Your task to perform on an android device: turn notification dots on Image 0: 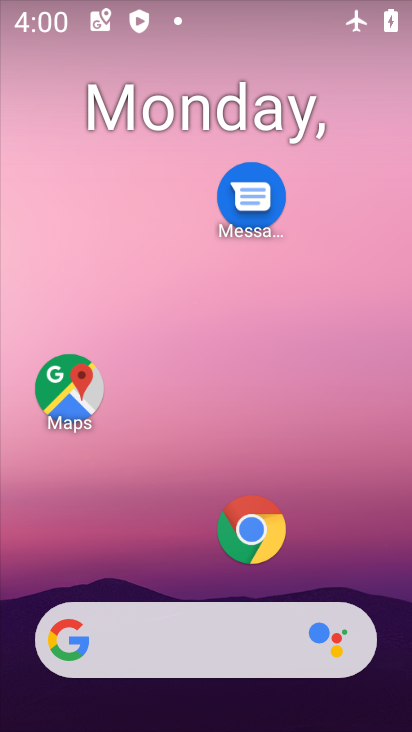
Step 0: drag from (181, 613) to (181, 117)
Your task to perform on an android device: turn notification dots on Image 1: 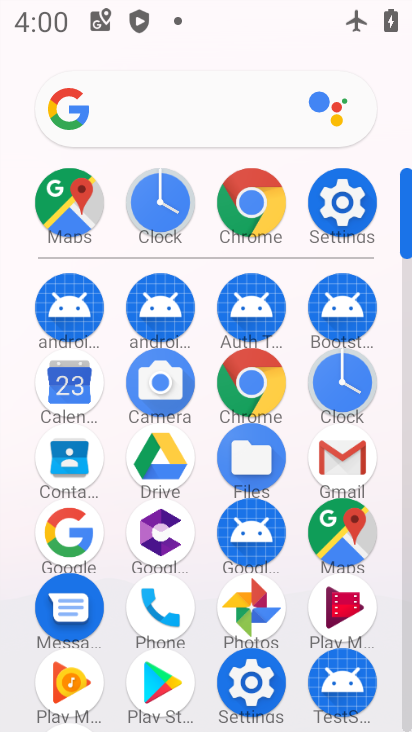
Step 1: click (324, 196)
Your task to perform on an android device: turn notification dots on Image 2: 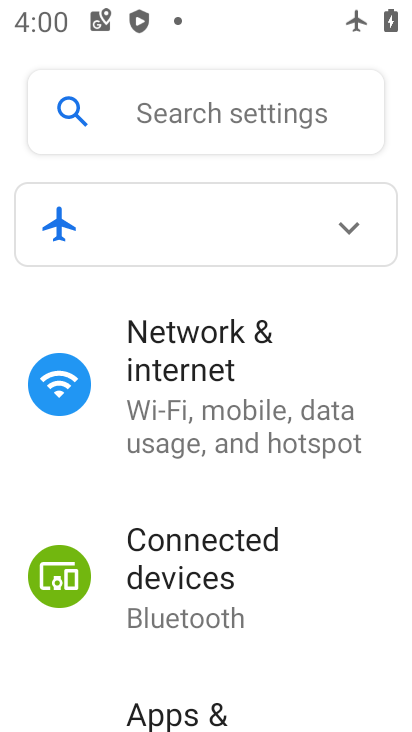
Step 2: drag from (167, 687) to (225, 175)
Your task to perform on an android device: turn notification dots on Image 3: 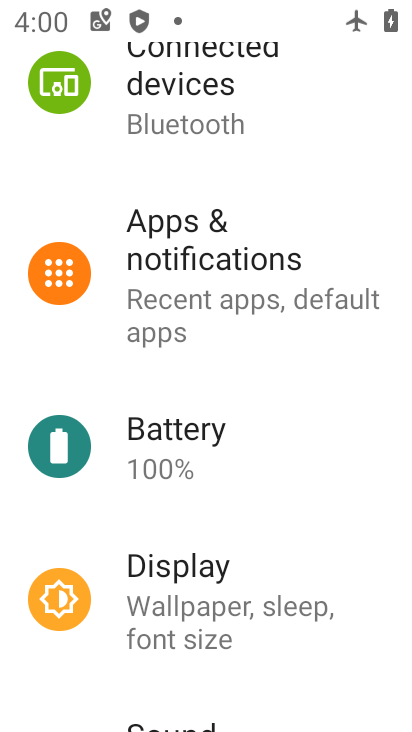
Step 3: click (187, 273)
Your task to perform on an android device: turn notification dots on Image 4: 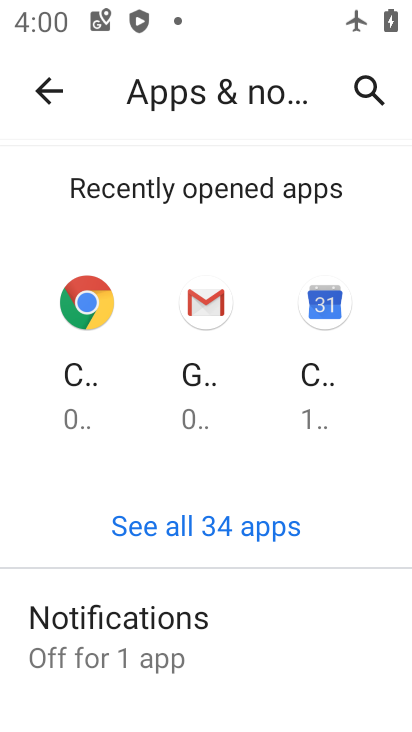
Step 4: click (110, 630)
Your task to perform on an android device: turn notification dots on Image 5: 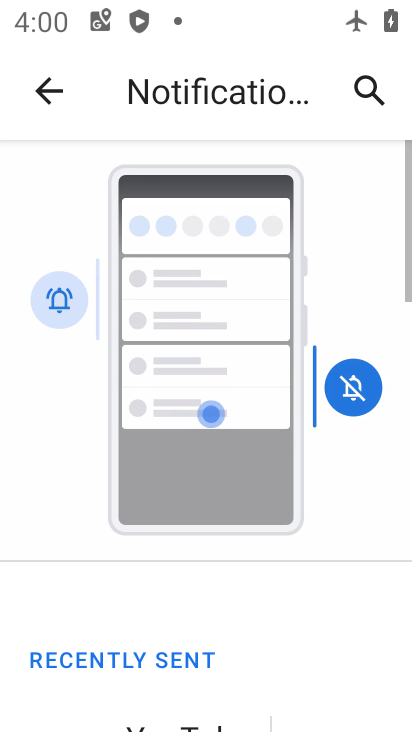
Step 5: drag from (235, 684) to (230, 153)
Your task to perform on an android device: turn notification dots on Image 6: 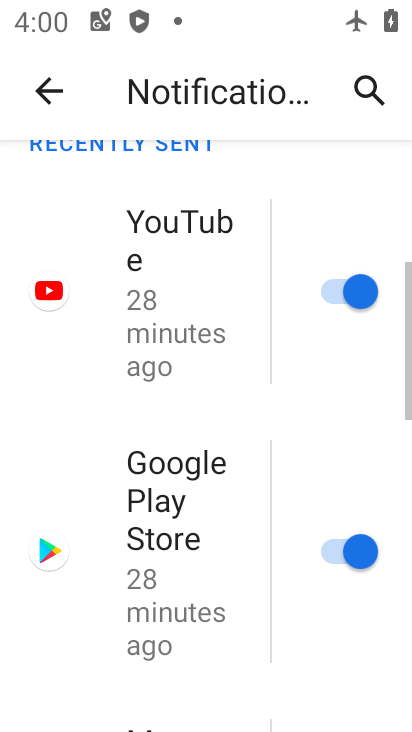
Step 6: drag from (172, 632) to (153, 129)
Your task to perform on an android device: turn notification dots on Image 7: 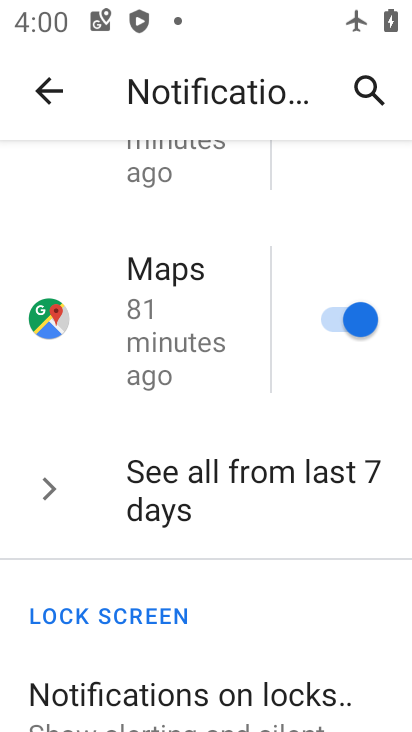
Step 7: drag from (225, 685) to (229, 418)
Your task to perform on an android device: turn notification dots on Image 8: 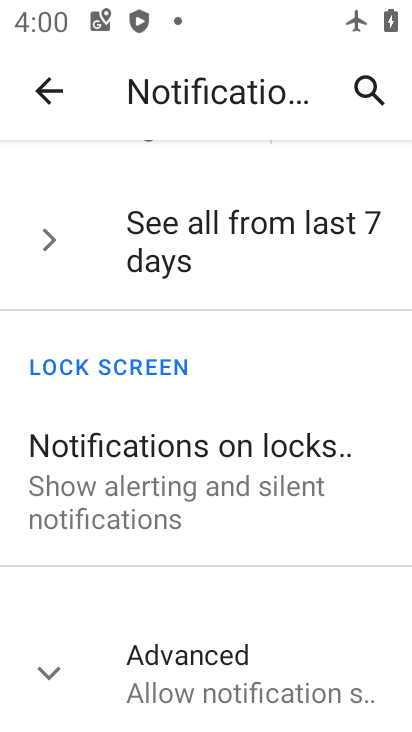
Step 8: drag from (186, 676) to (218, 318)
Your task to perform on an android device: turn notification dots on Image 9: 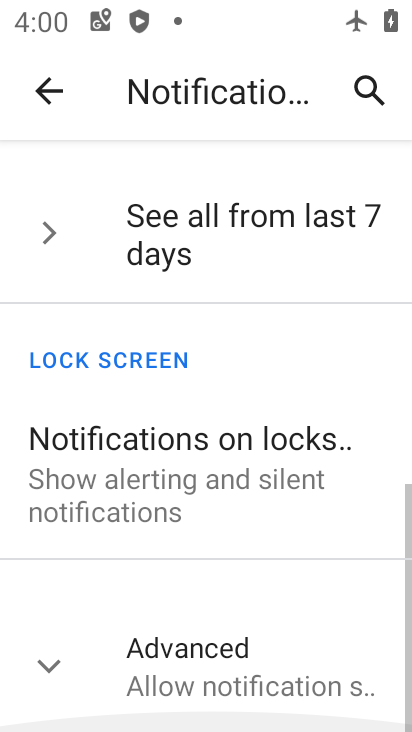
Step 9: click (187, 701)
Your task to perform on an android device: turn notification dots on Image 10: 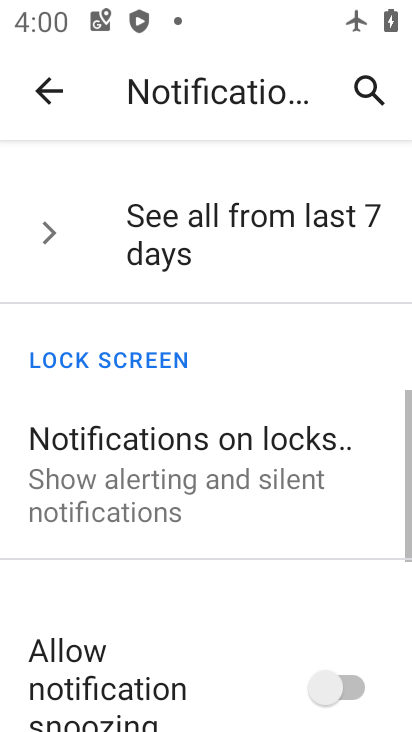
Step 10: drag from (185, 705) to (191, 278)
Your task to perform on an android device: turn notification dots on Image 11: 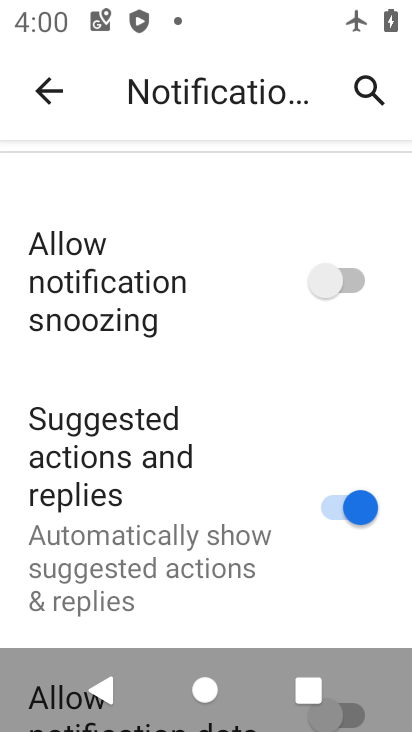
Step 11: drag from (164, 542) to (180, 189)
Your task to perform on an android device: turn notification dots on Image 12: 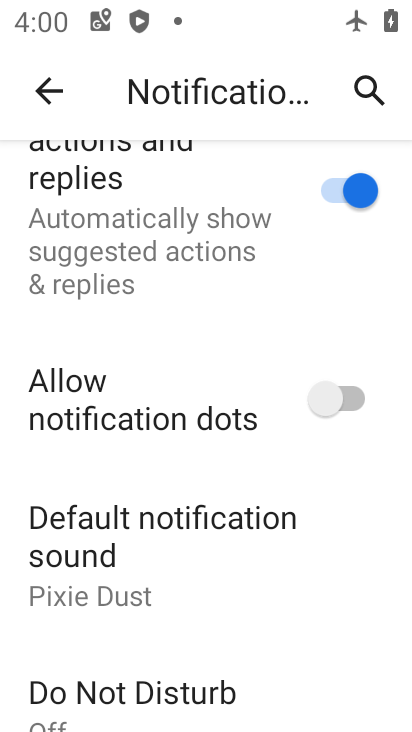
Step 12: click (315, 397)
Your task to perform on an android device: turn notification dots on Image 13: 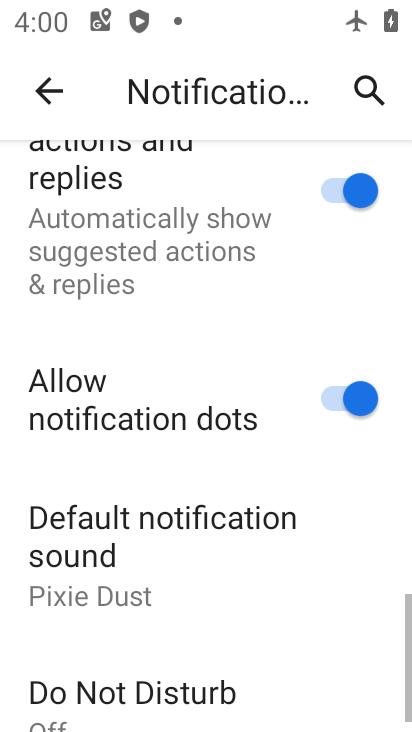
Step 13: task complete